Your task to perform on an android device: choose inbox layout in the gmail app Image 0: 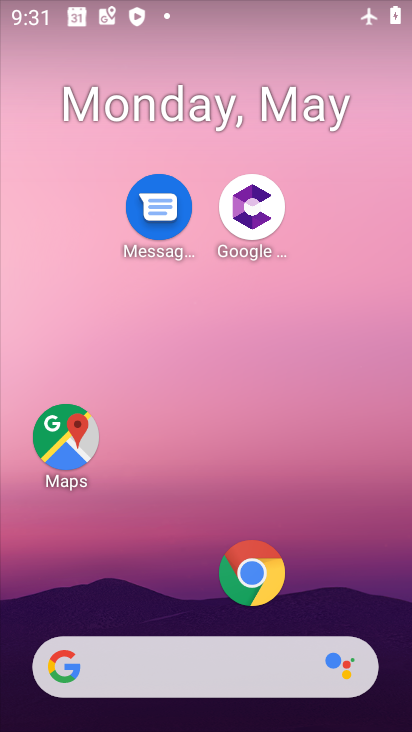
Step 0: drag from (206, 606) to (247, 64)
Your task to perform on an android device: choose inbox layout in the gmail app Image 1: 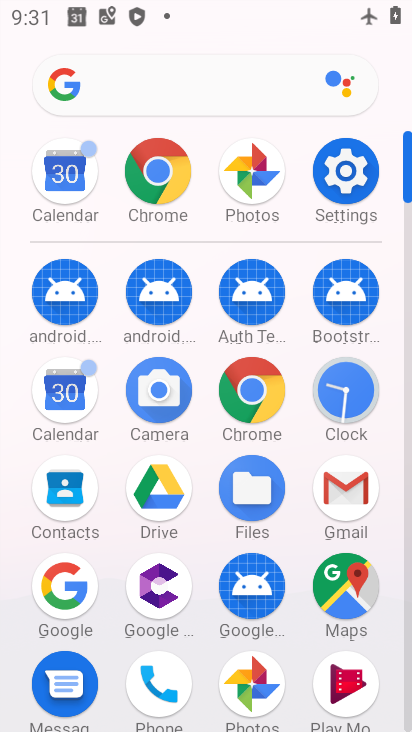
Step 1: click (360, 477)
Your task to perform on an android device: choose inbox layout in the gmail app Image 2: 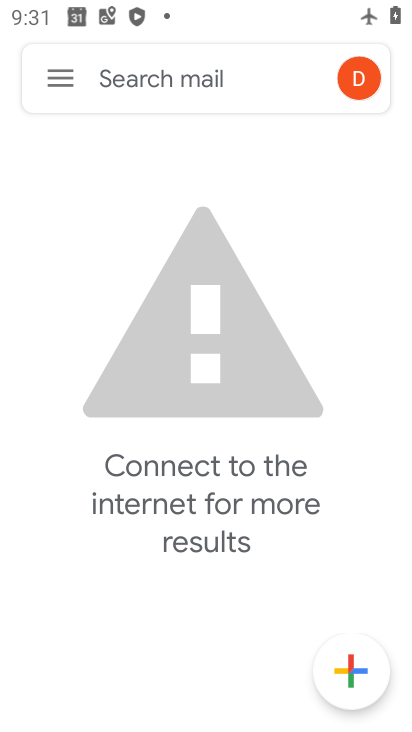
Step 2: click (49, 90)
Your task to perform on an android device: choose inbox layout in the gmail app Image 3: 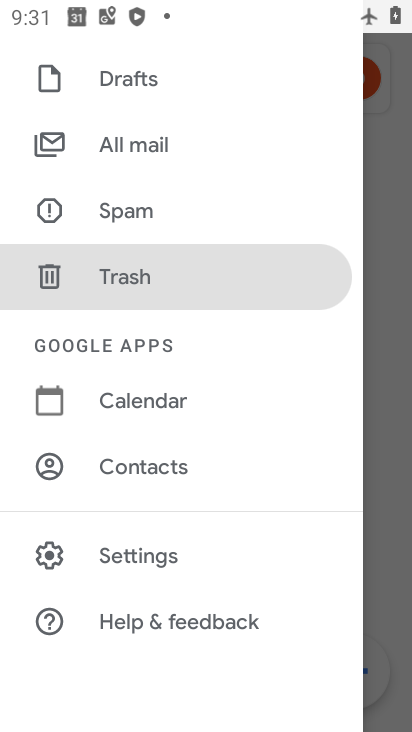
Step 3: click (167, 546)
Your task to perform on an android device: choose inbox layout in the gmail app Image 4: 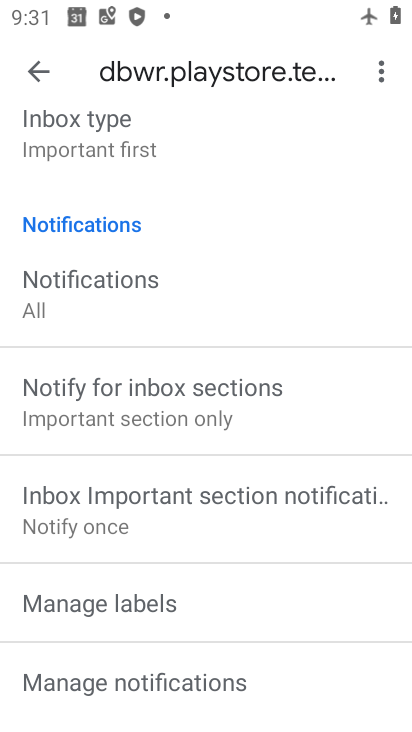
Step 4: task complete